Your task to perform on an android device: show emergency info Image 0: 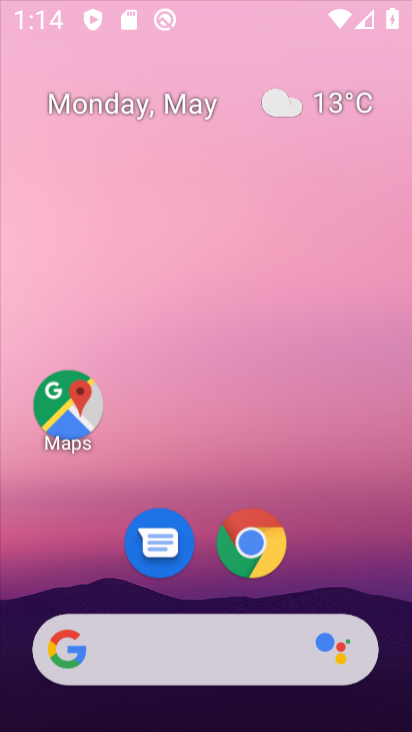
Step 0: click (332, 12)
Your task to perform on an android device: show emergency info Image 1: 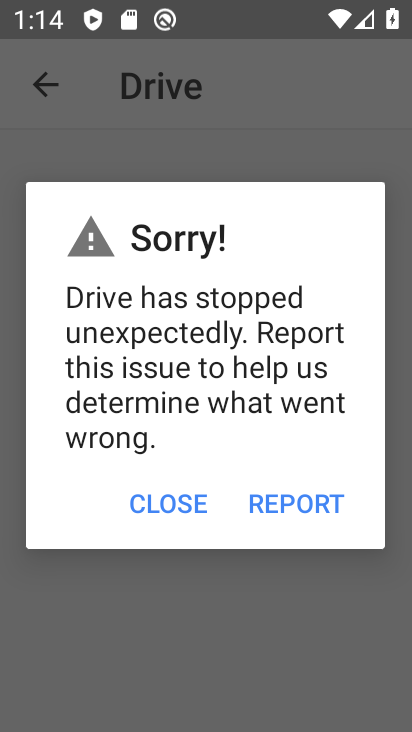
Step 1: press home button
Your task to perform on an android device: show emergency info Image 2: 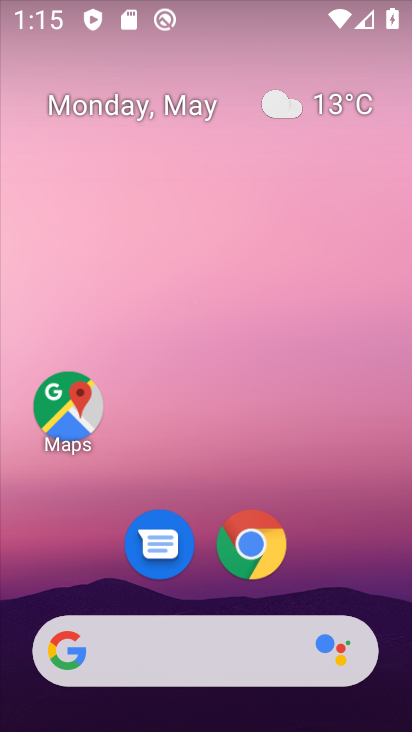
Step 2: drag from (403, 626) to (339, 104)
Your task to perform on an android device: show emergency info Image 3: 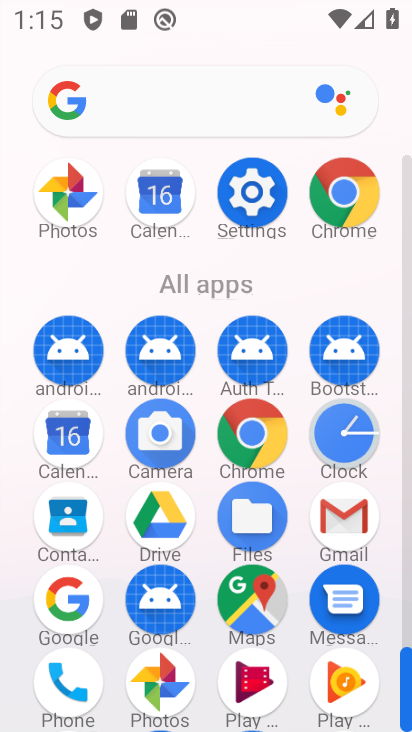
Step 3: click (410, 626)
Your task to perform on an android device: show emergency info Image 4: 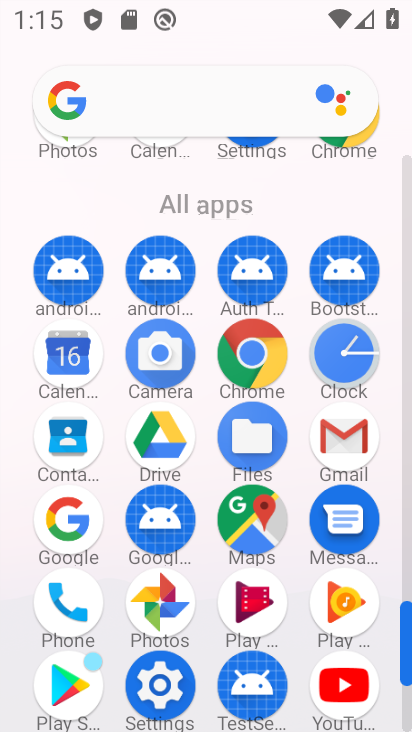
Step 4: click (161, 684)
Your task to perform on an android device: show emergency info Image 5: 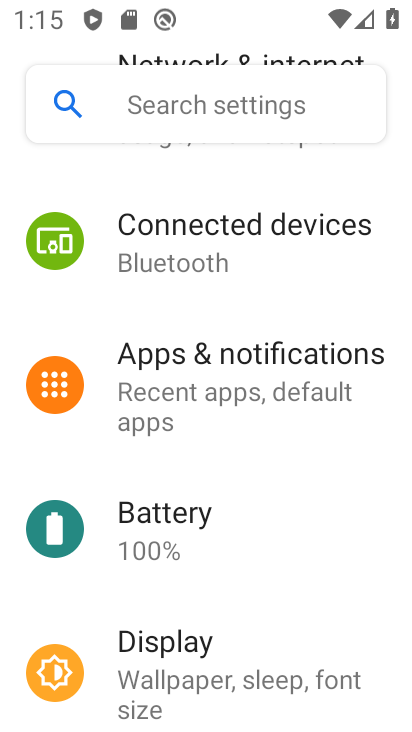
Step 5: drag from (369, 681) to (353, 259)
Your task to perform on an android device: show emergency info Image 6: 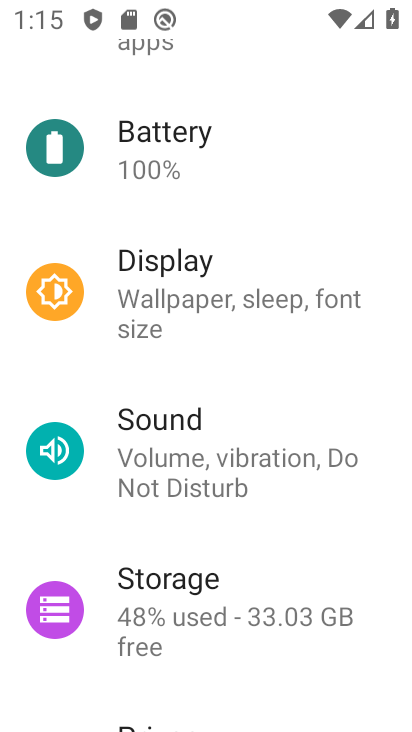
Step 6: drag from (356, 664) to (369, 171)
Your task to perform on an android device: show emergency info Image 7: 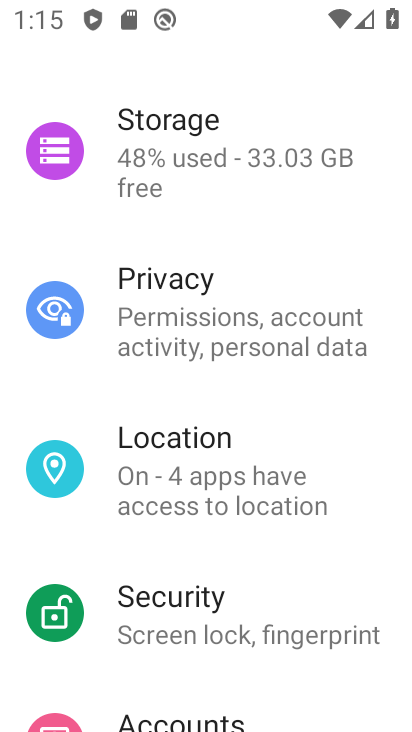
Step 7: drag from (372, 643) to (365, 152)
Your task to perform on an android device: show emergency info Image 8: 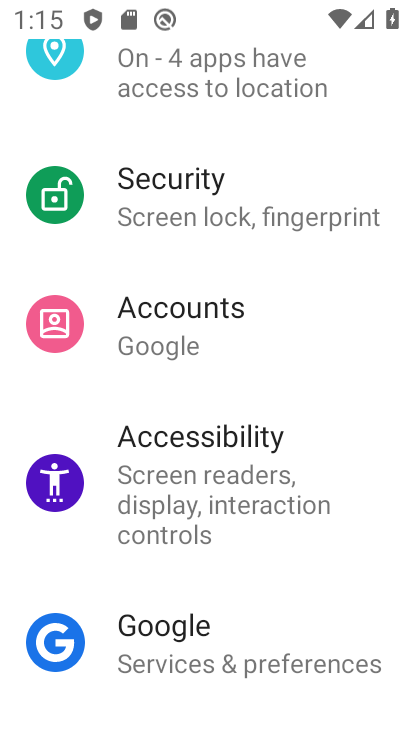
Step 8: drag from (339, 617) to (367, 216)
Your task to perform on an android device: show emergency info Image 9: 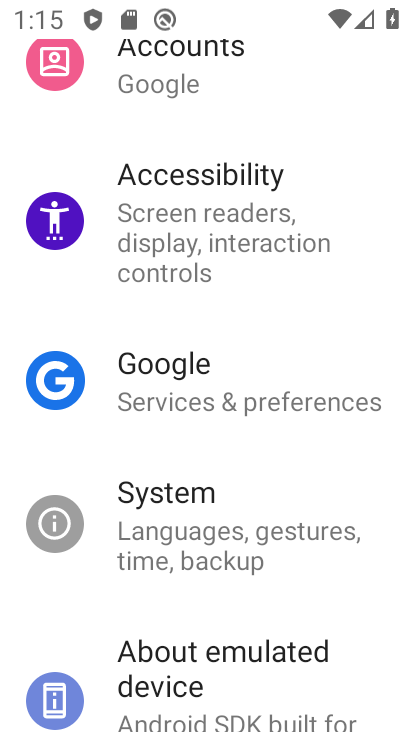
Step 9: drag from (361, 680) to (382, 121)
Your task to perform on an android device: show emergency info Image 10: 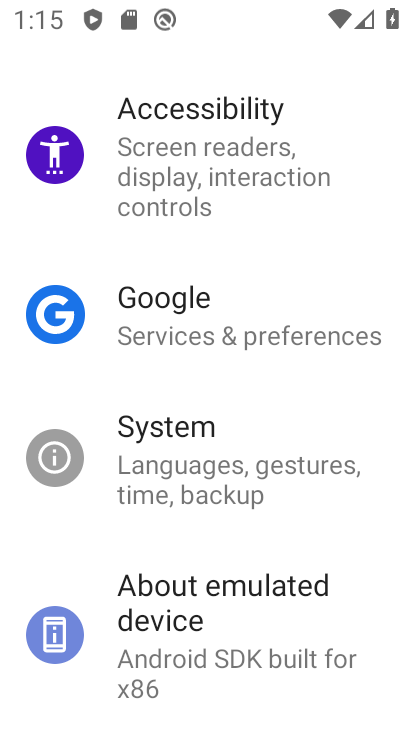
Step 10: click (154, 615)
Your task to perform on an android device: show emergency info Image 11: 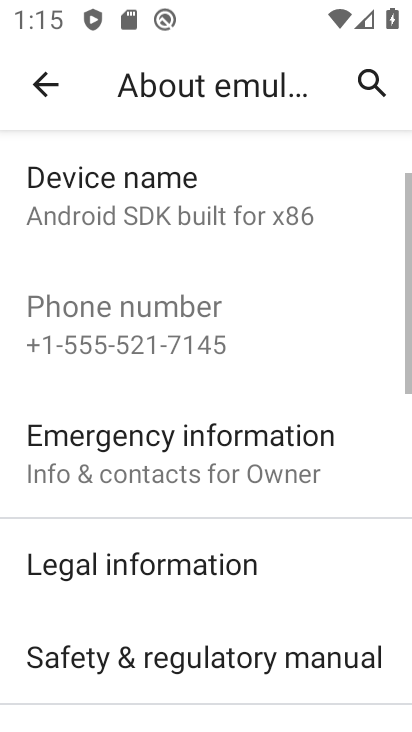
Step 11: click (159, 432)
Your task to perform on an android device: show emergency info Image 12: 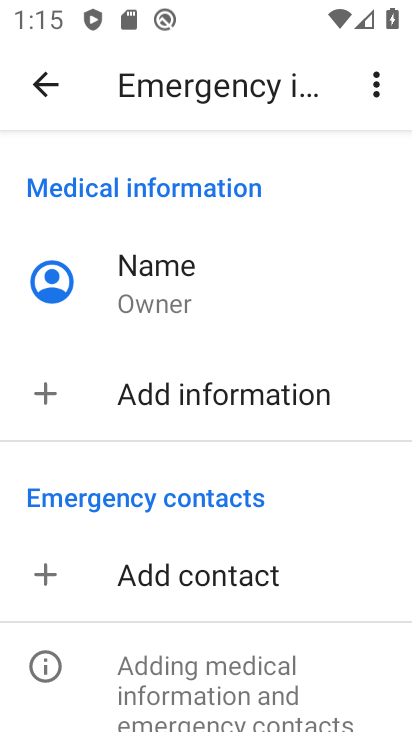
Step 12: task complete